Your task to perform on an android device: turn off location history Image 0: 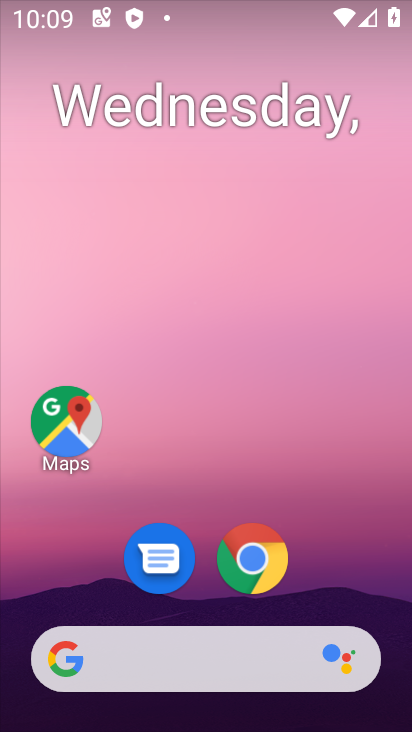
Step 0: drag from (88, 604) to (370, 116)
Your task to perform on an android device: turn off location history Image 1: 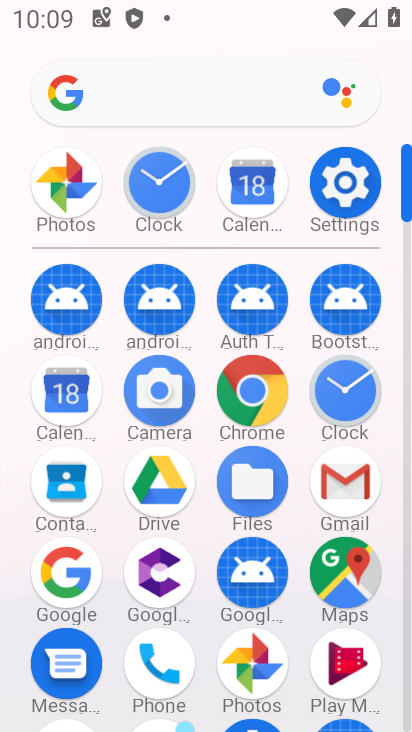
Step 1: click (359, 207)
Your task to perform on an android device: turn off location history Image 2: 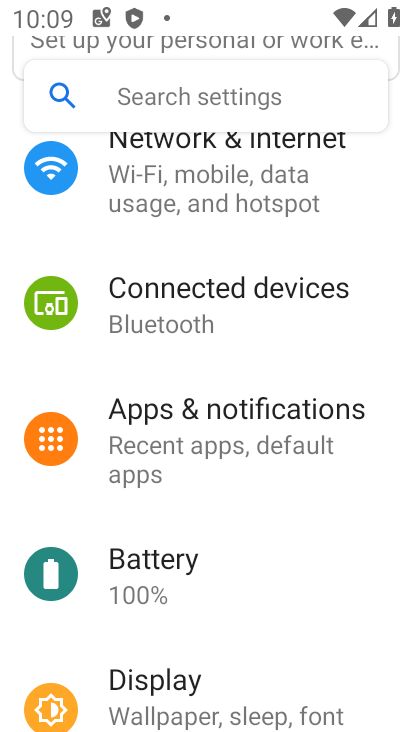
Step 2: drag from (37, 522) to (219, 313)
Your task to perform on an android device: turn off location history Image 3: 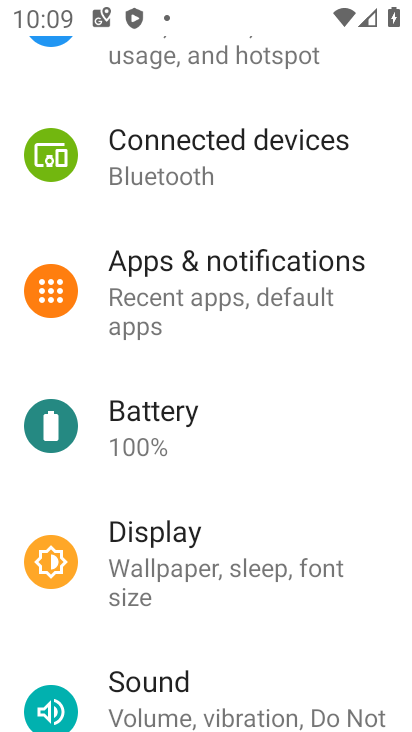
Step 3: drag from (23, 683) to (294, 250)
Your task to perform on an android device: turn off location history Image 4: 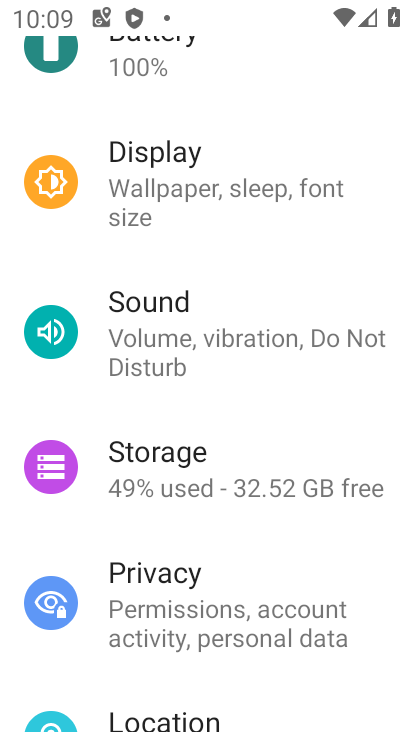
Step 4: click (105, 704)
Your task to perform on an android device: turn off location history Image 5: 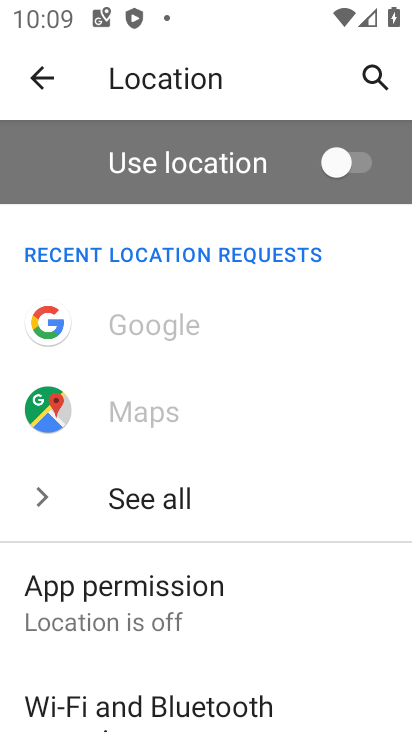
Step 5: drag from (8, 571) to (257, 293)
Your task to perform on an android device: turn off location history Image 6: 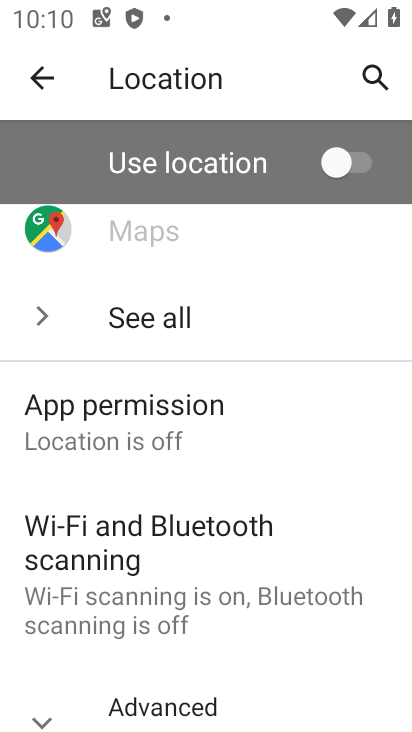
Step 6: drag from (4, 689) to (261, 324)
Your task to perform on an android device: turn off location history Image 7: 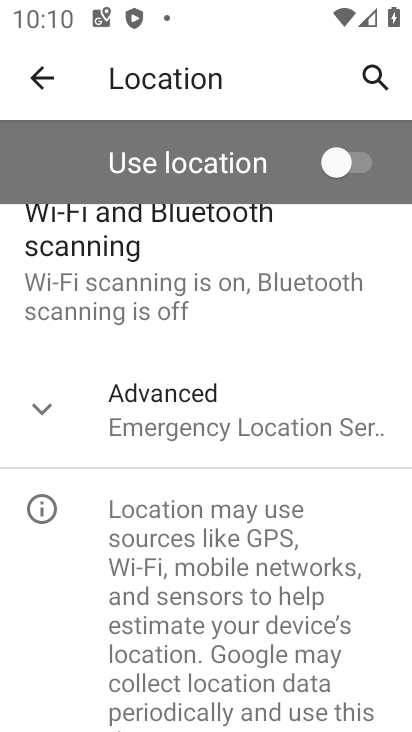
Step 7: click (237, 411)
Your task to perform on an android device: turn off location history Image 8: 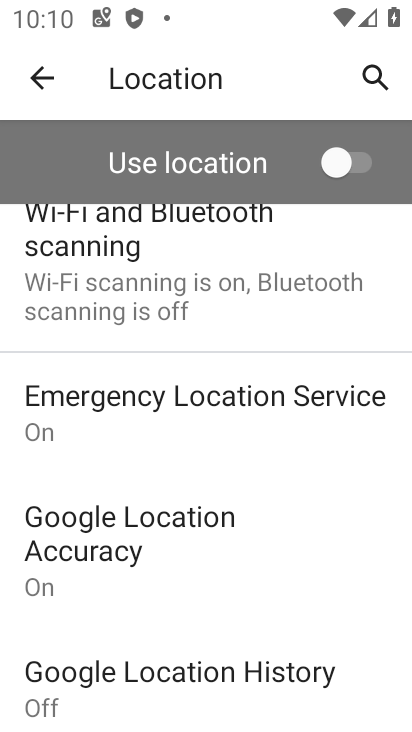
Step 8: click (96, 693)
Your task to perform on an android device: turn off location history Image 9: 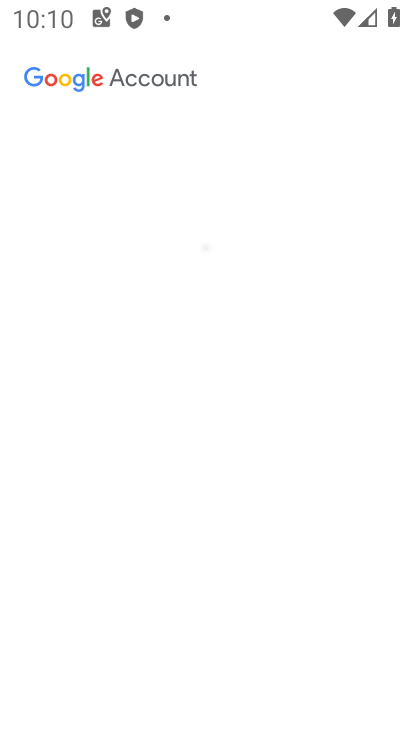
Step 9: task complete